Your task to perform on an android device: Check the weather Image 0: 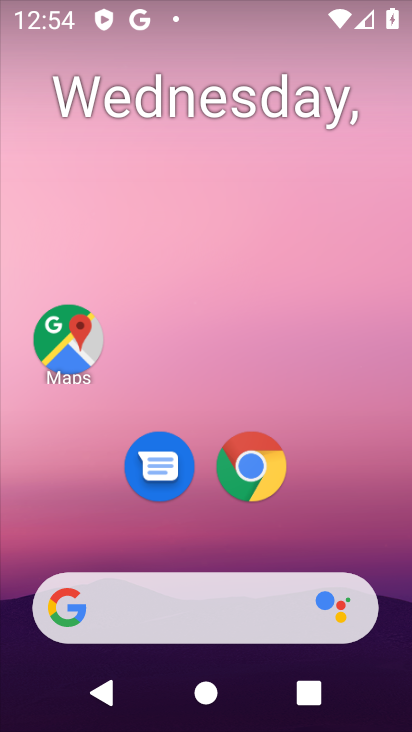
Step 0: click (126, 595)
Your task to perform on an android device: Check the weather Image 1: 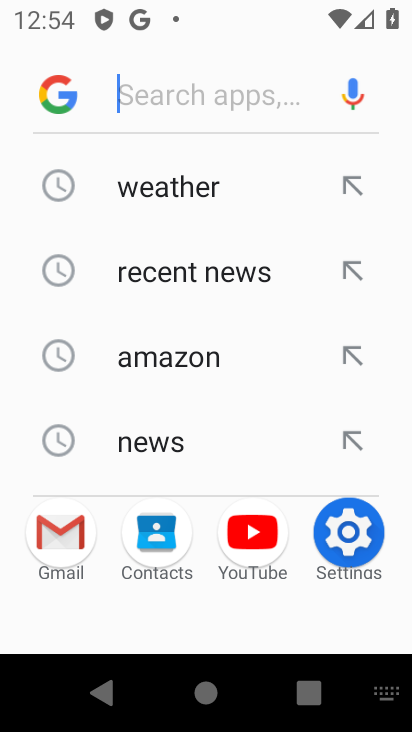
Step 1: click (293, 146)
Your task to perform on an android device: Check the weather Image 2: 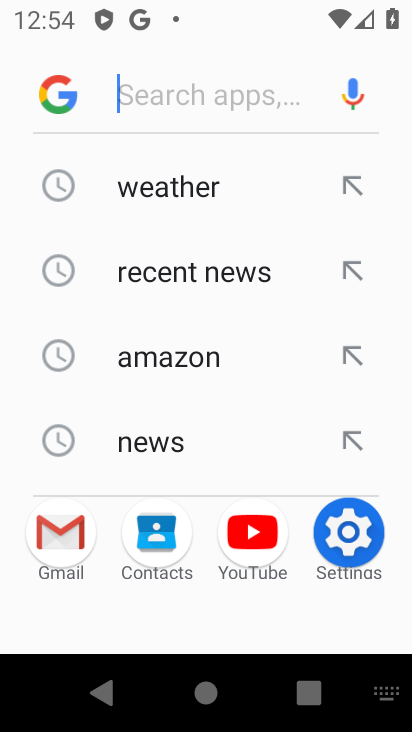
Step 2: click (290, 168)
Your task to perform on an android device: Check the weather Image 3: 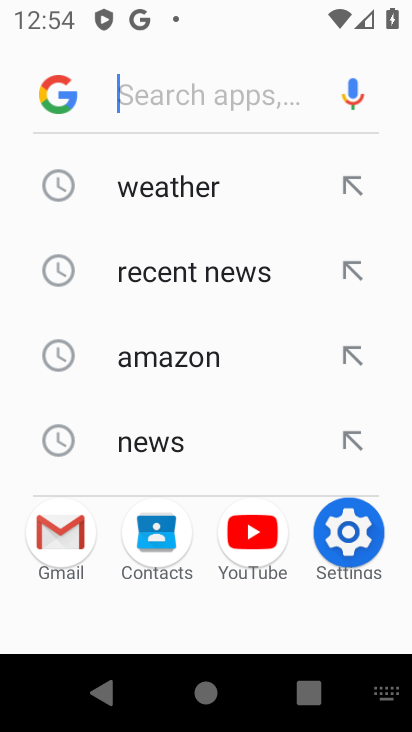
Step 3: click (290, 168)
Your task to perform on an android device: Check the weather Image 4: 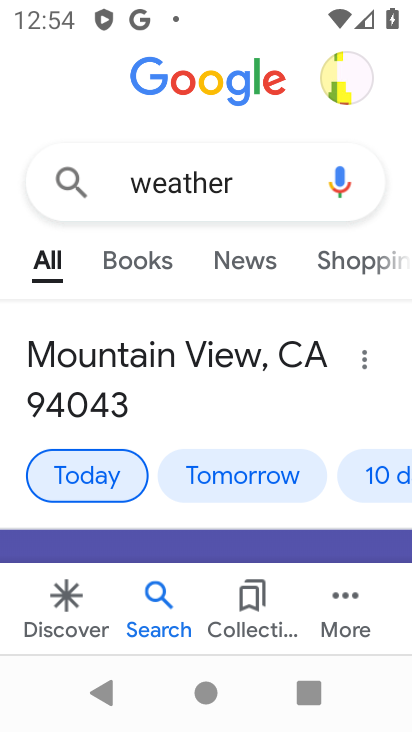
Step 4: task complete